Your task to perform on an android device: Open Yahoo.com Image 0: 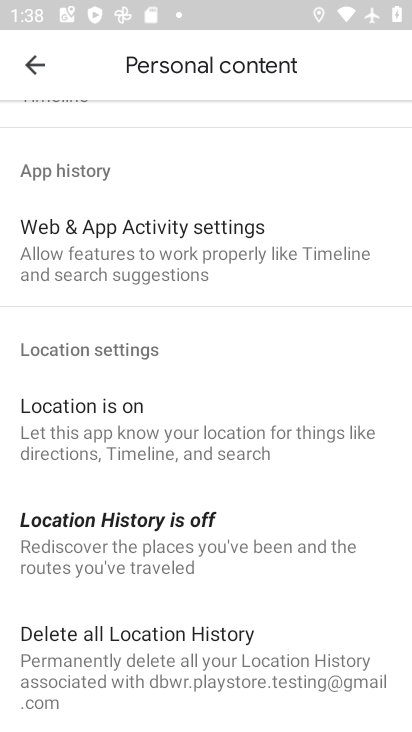
Step 0: press home button
Your task to perform on an android device: Open Yahoo.com Image 1: 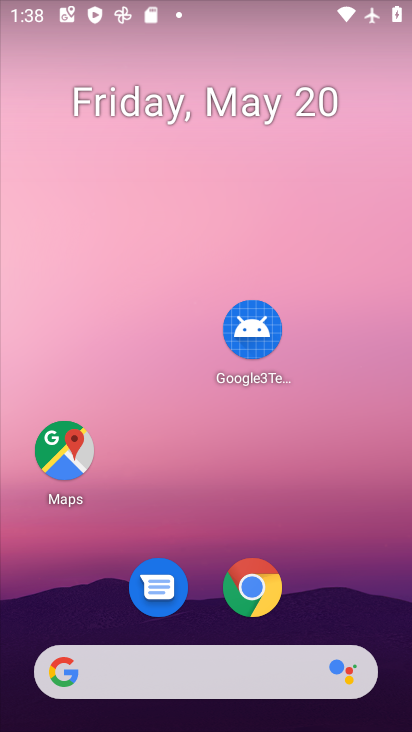
Step 1: click (254, 585)
Your task to perform on an android device: Open Yahoo.com Image 2: 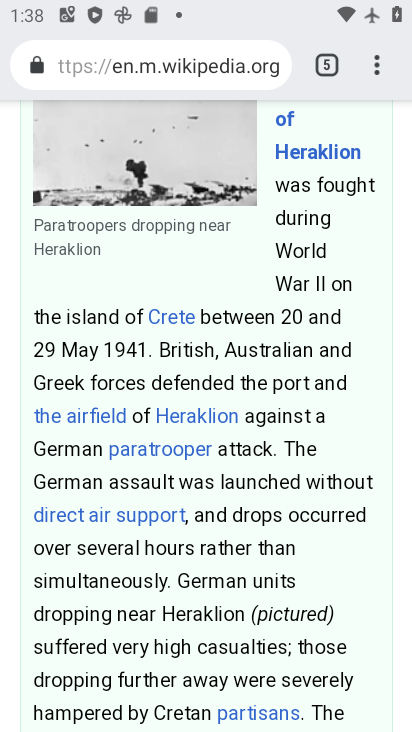
Step 2: click (374, 62)
Your task to perform on an android device: Open Yahoo.com Image 3: 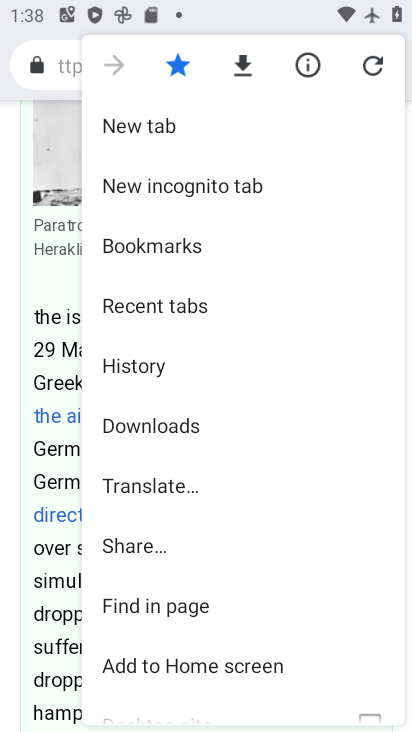
Step 3: click (149, 123)
Your task to perform on an android device: Open Yahoo.com Image 4: 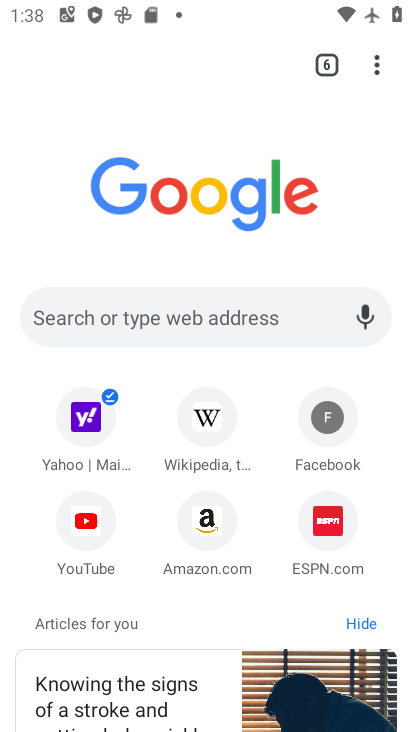
Step 4: click (85, 417)
Your task to perform on an android device: Open Yahoo.com Image 5: 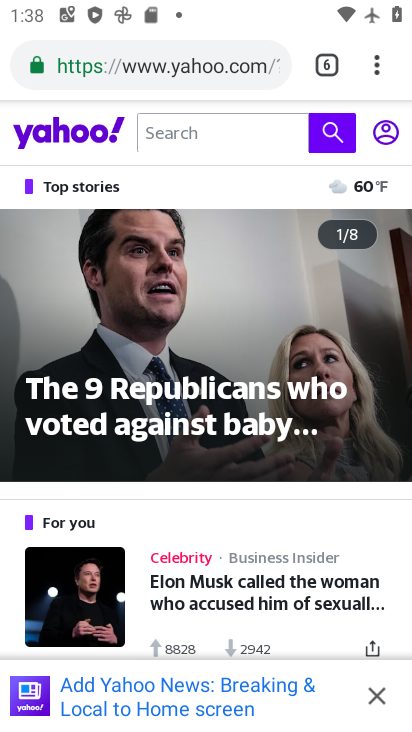
Step 5: task complete